Your task to perform on an android device: Open sound settings Image 0: 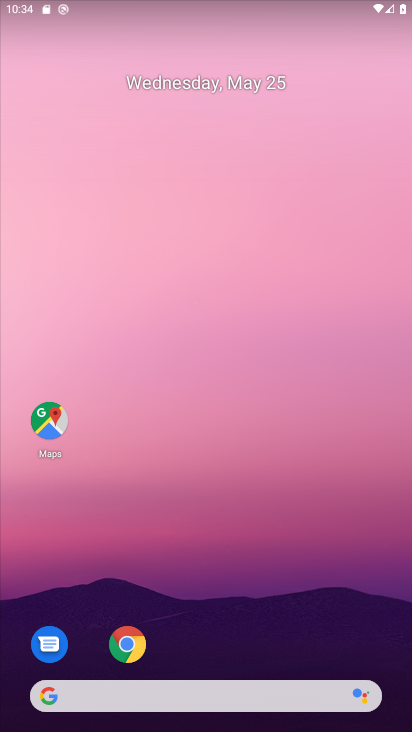
Step 0: drag from (200, 672) to (340, 212)
Your task to perform on an android device: Open sound settings Image 1: 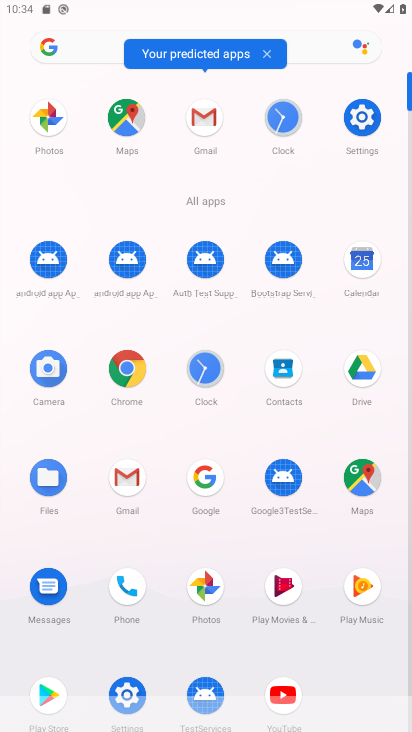
Step 1: click (125, 683)
Your task to perform on an android device: Open sound settings Image 2: 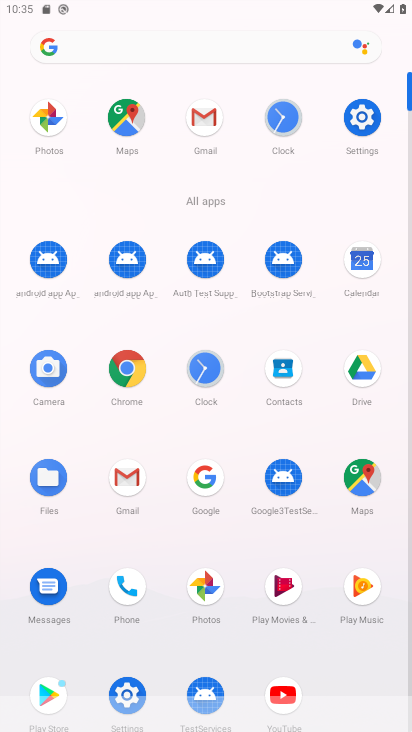
Step 2: click (126, 683)
Your task to perform on an android device: Open sound settings Image 3: 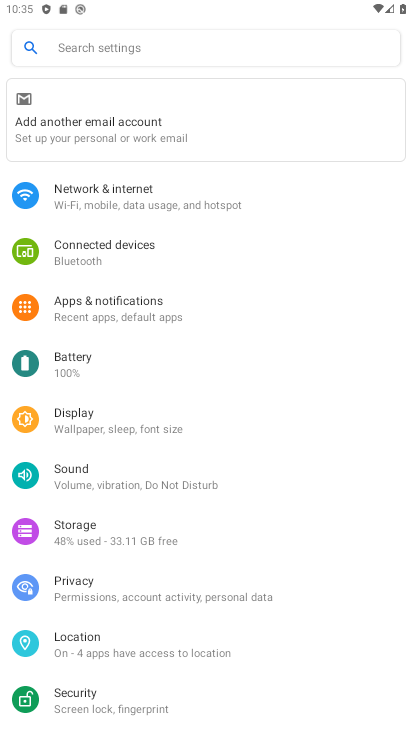
Step 3: click (148, 484)
Your task to perform on an android device: Open sound settings Image 4: 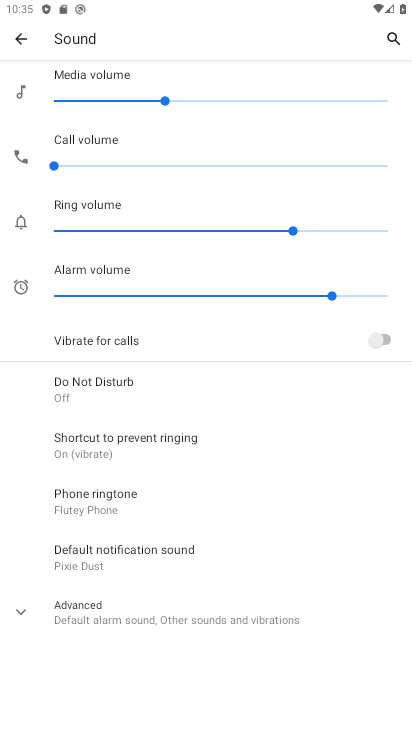
Step 4: task complete